Your task to perform on an android device: make emails show in primary in the gmail app Image 0: 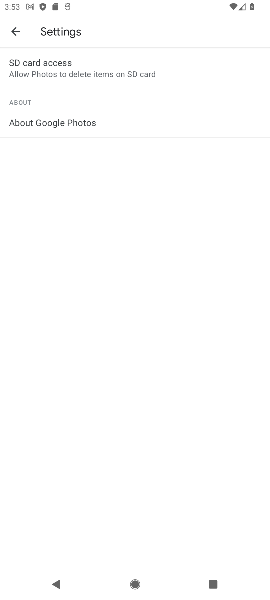
Step 0: press home button
Your task to perform on an android device: make emails show in primary in the gmail app Image 1: 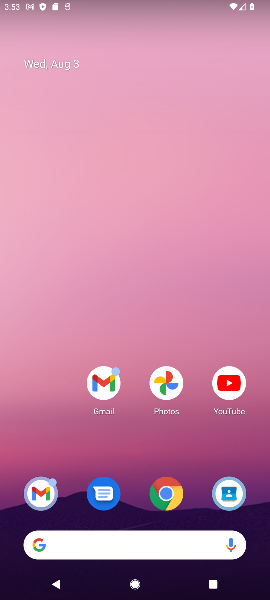
Step 1: drag from (56, 448) to (56, 76)
Your task to perform on an android device: make emails show in primary in the gmail app Image 2: 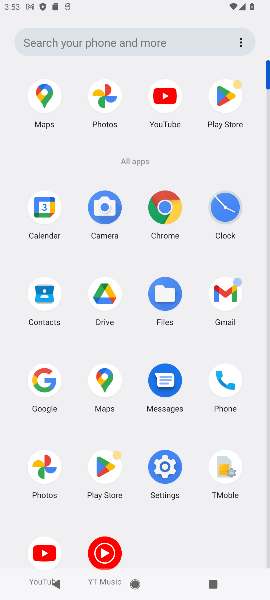
Step 2: click (223, 293)
Your task to perform on an android device: make emails show in primary in the gmail app Image 3: 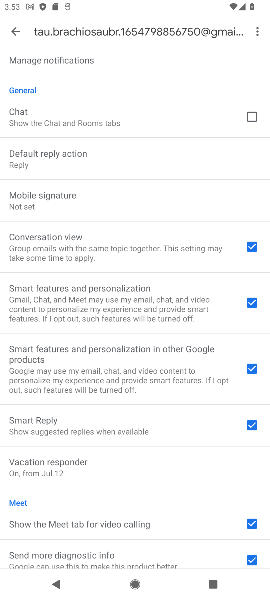
Step 3: drag from (196, 502) to (214, 417)
Your task to perform on an android device: make emails show in primary in the gmail app Image 4: 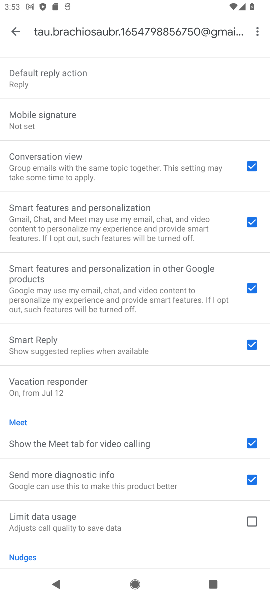
Step 4: drag from (177, 514) to (192, 421)
Your task to perform on an android device: make emails show in primary in the gmail app Image 5: 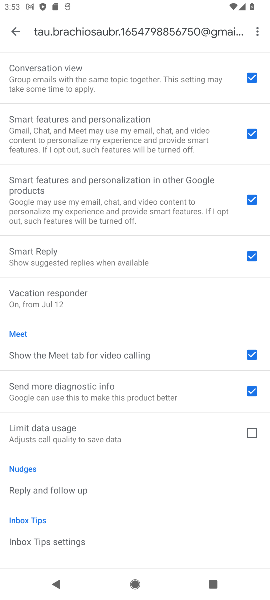
Step 5: drag from (180, 527) to (197, 415)
Your task to perform on an android device: make emails show in primary in the gmail app Image 6: 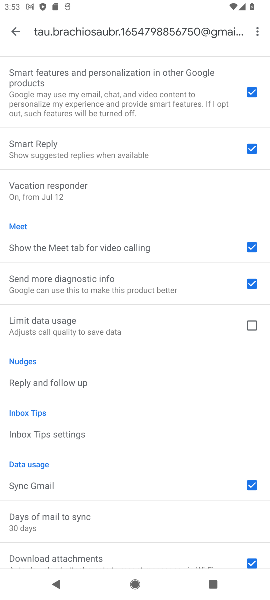
Step 6: drag from (160, 535) to (179, 410)
Your task to perform on an android device: make emails show in primary in the gmail app Image 7: 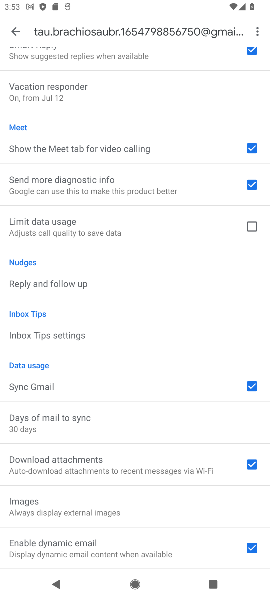
Step 7: drag from (186, 499) to (198, 379)
Your task to perform on an android device: make emails show in primary in the gmail app Image 8: 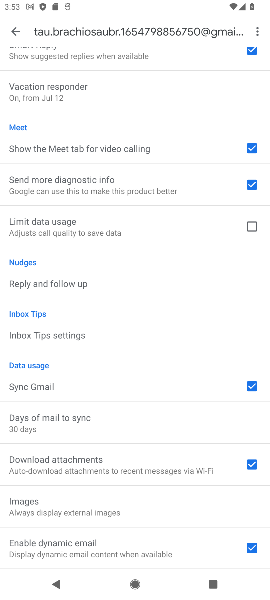
Step 8: drag from (197, 226) to (199, 320)
Your task to perform on an android device: make emails show in primary in the gmail app Image 9: 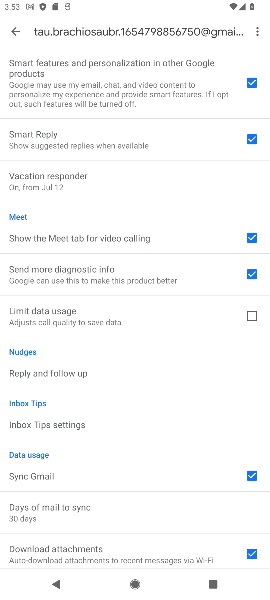
Step 9: drag from (199, 232) to (199, 346)
Your task to perform on an android device: make emails show in primary in the gmail app Image 10: 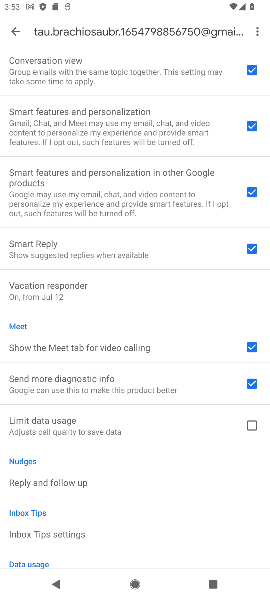
Step 10: drag from (200, 228) to (197, 328)
Your task to perform on an android device: make emails show in primary in the gmail app Image 11: 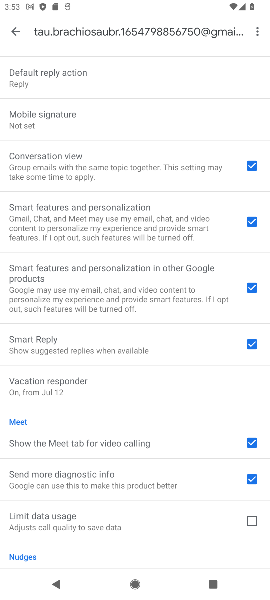
Step 11: drag from (201, 136) to (199, 280)
Your task to perform on an android device: make emails show in primary in the gmail app Image 12: 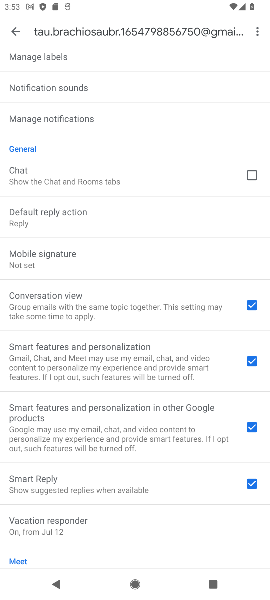
Step 12: drag from (179, 123) to (168, 236)
Your task to perform on an android device: make emails show in primary in the gmail app Image 13: 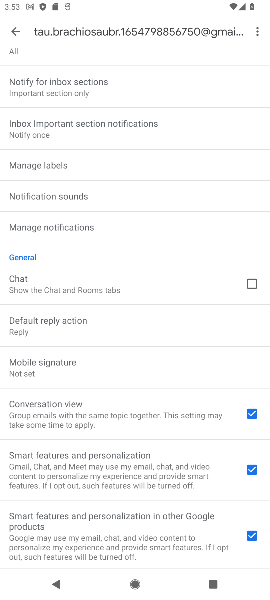
Step 13: drag from (166, 129) to (166, 266)
Your task to perform on an android device: make emails show in primary in the gmail app Image 14: 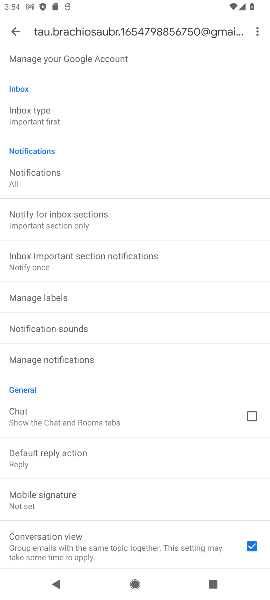
Step 14: drag from (148, 99) to (141, 259)
Your task to perform on an android device: make emails show in primary in the gmail app Image 15: 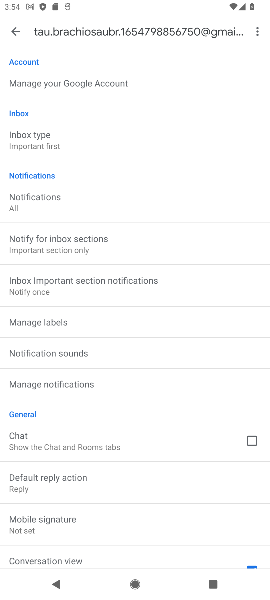
Step 15: click (82, 143)
Your task to perform on an android device: make emails show in primary in the gmail app Image 16: 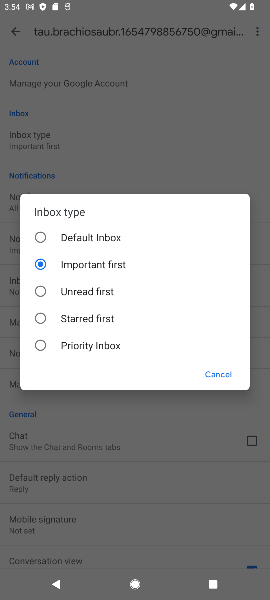
Step 16: click (99, 238)
Your task to perform on an android device: make emails show in primary in the gmail app Image 17: 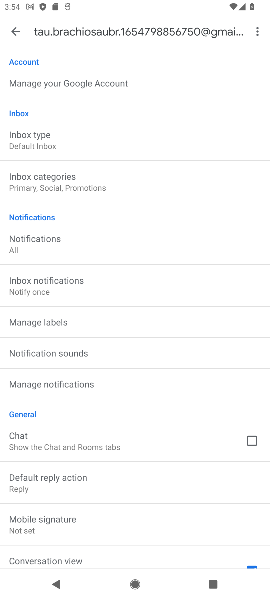
Step 17: click (65, 182)
Your task to perform on an android device: make emails show in primary in the gmail app Image 18: 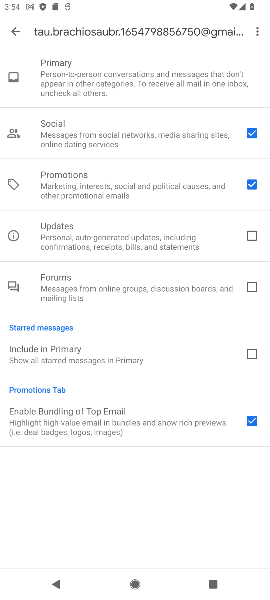
Step 18: click (257, 181)
Your task to perform on an android device: make emails show in primary in the gmail app Image 19: 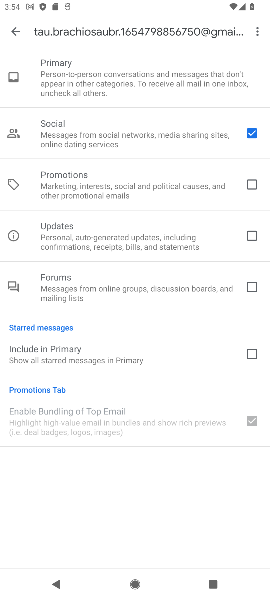
Step 19: click (256, 126)
Your task to perform on an android device: make emails show in primary in the gmail app Image 20: 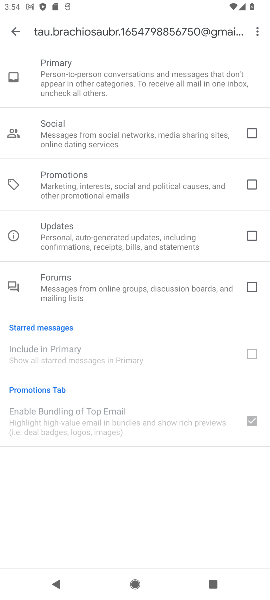
Step 20: task complete